Your task to perform on an android device: Go to display settings Image 0: 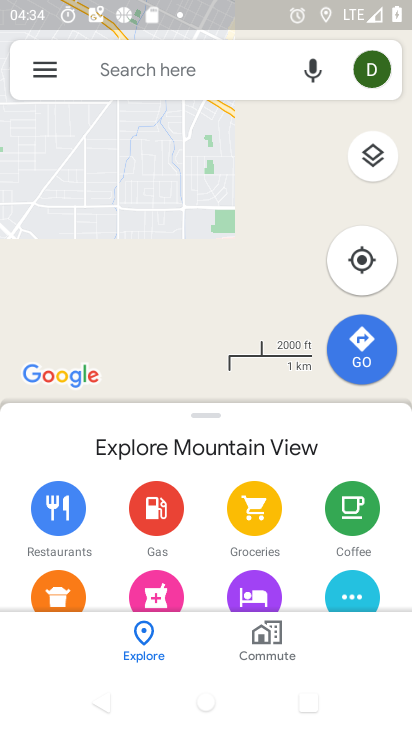
Step 0: press back button
Your task to perform on an android device: Go to display settings Image 1: 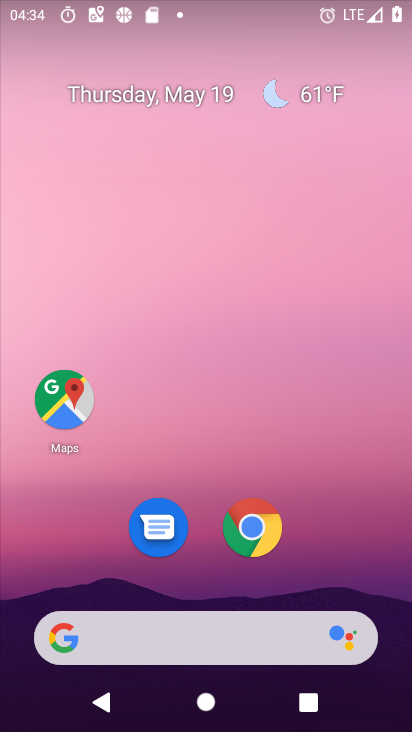
Step 1: drag from (245, 178) to (290, 8)
Your task to perform on an android device: Go to display settings Image 2: 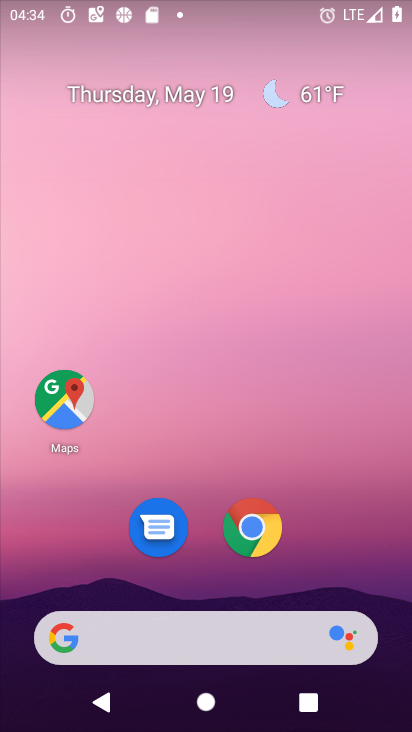
Step 2: drag from (192, 561) to (283, 38)
Your task to perform on an android device: Go to display settings Image 3: 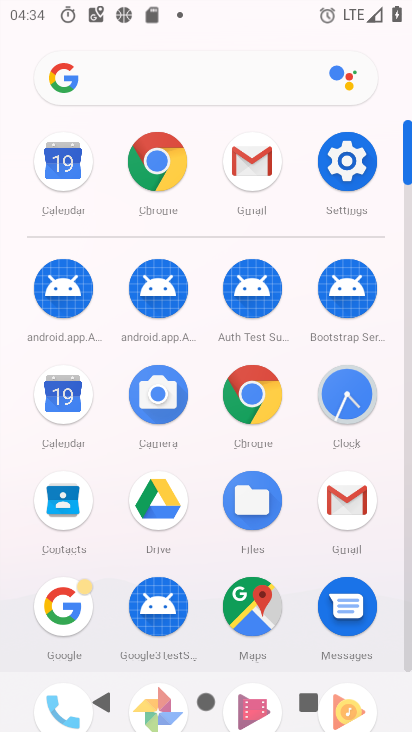
Step 3: click (337, 142)
Your task to perform on an android device: Go to display settings Image 4: 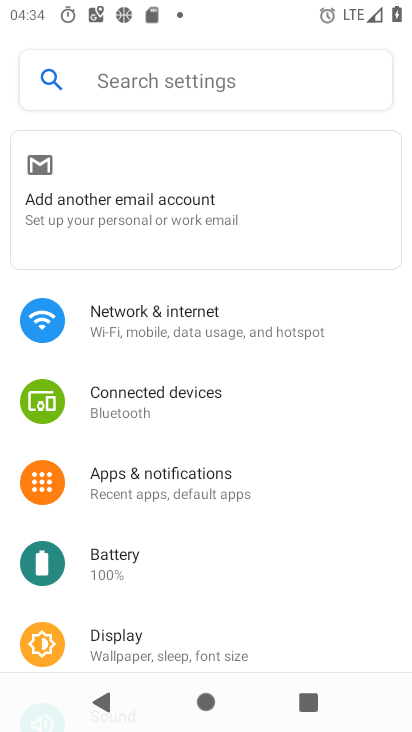
Step 4: click (111, 631)
Your task to perform on an android device: Go to display settings Image 5: 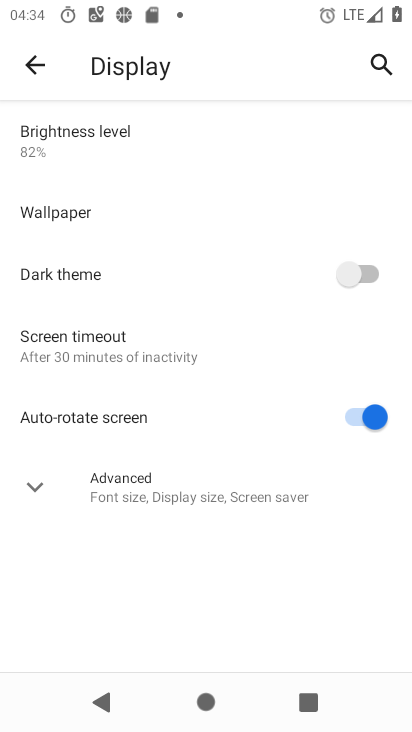
Step 5: task complete